Your task to perform on an android device: toggle wifi Image 0: 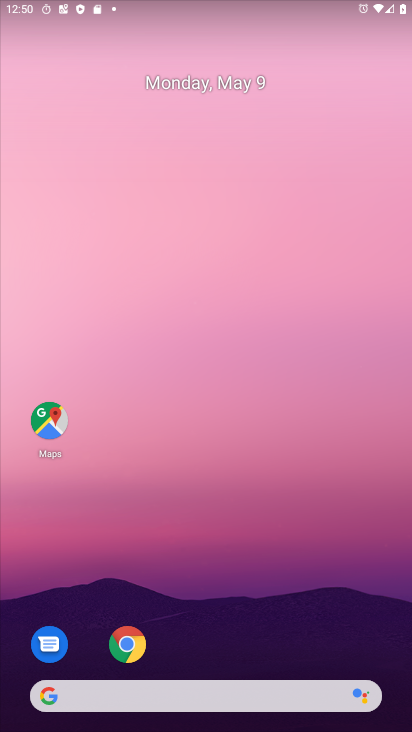
Step 0: drag from (304, 626) to (146, 81)
Your task to perform on an android device: toggle wifi Image 1: 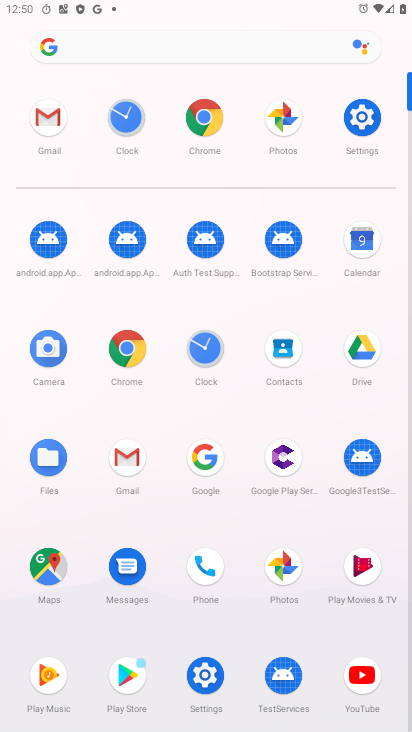
Step 1: click (355, 120)
Your task to perform on an android device: toggle wifi Image 2: 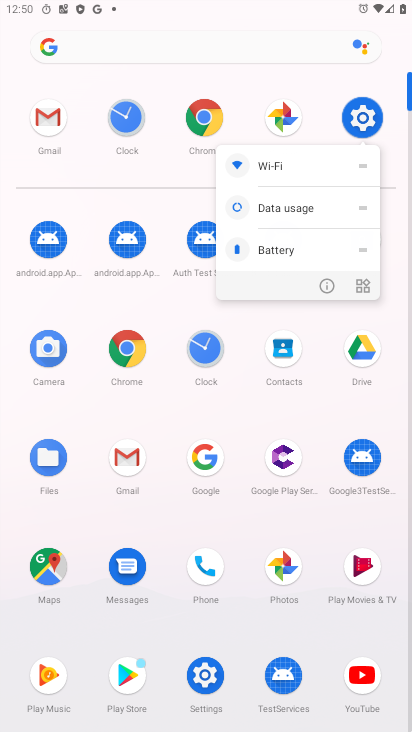
Step 2: click (364, 114)
Your task to perform on an android device: toggle wifi Image 3: 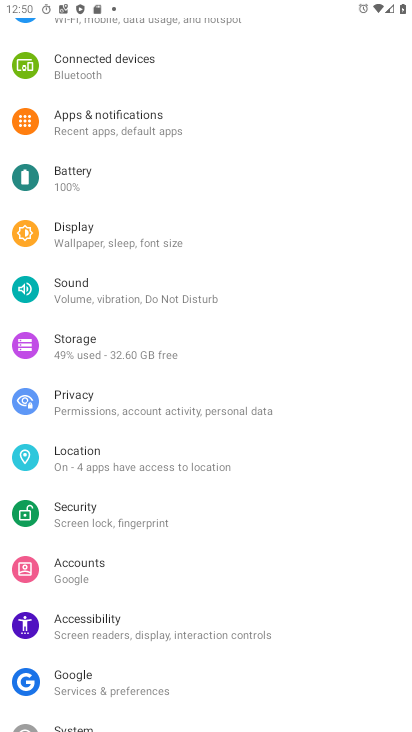
Step 3: drag from (188, 434) to (200, 560)
Your task to perform on an android device: toggle wifi Image 4: 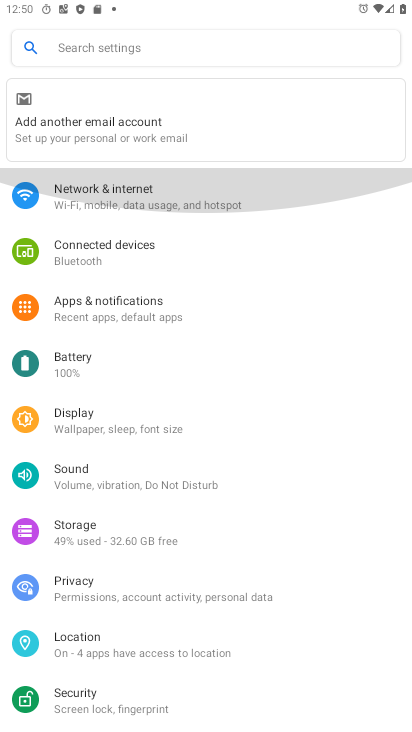
Step 4: drag from (135, 107) to (216, 607)
Your task to perform on an android device: toggle wifi Image 5: 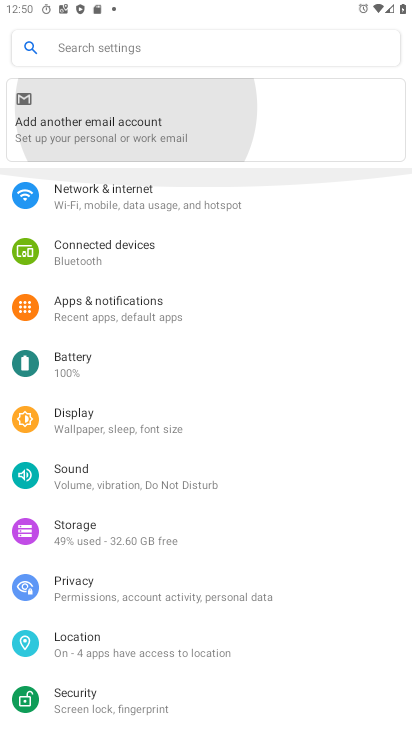
Step 5: drag from (119, 205) to (187, 472)
Your task to perform on an android device: toggle wifi Image 6: 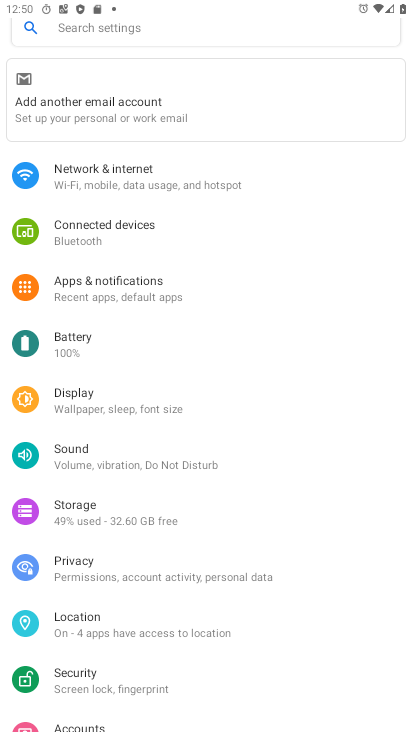
Step 6: click (122, 168)
Your task to perform on an android device: toggle wifi Image 7: 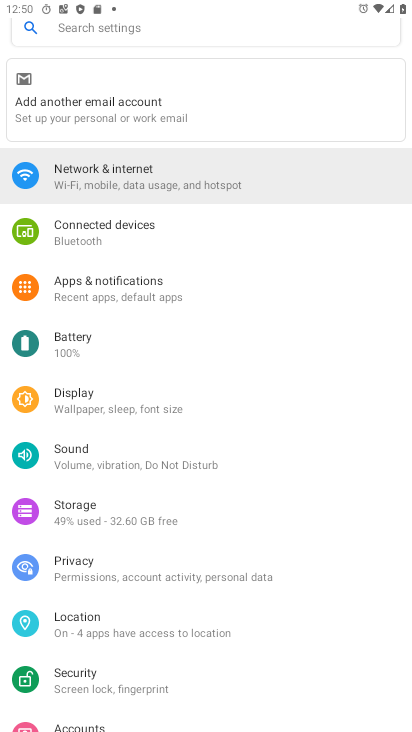
Step 7: click (121, 167)
Your task to perform on an android device: toggle wifi Image 8: 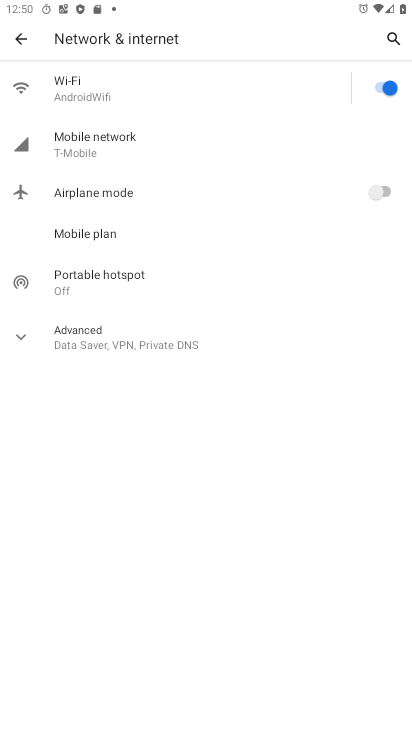
Step 8: click (387, 86)
Your task to perform on an android device: toggle wifi Image 9: 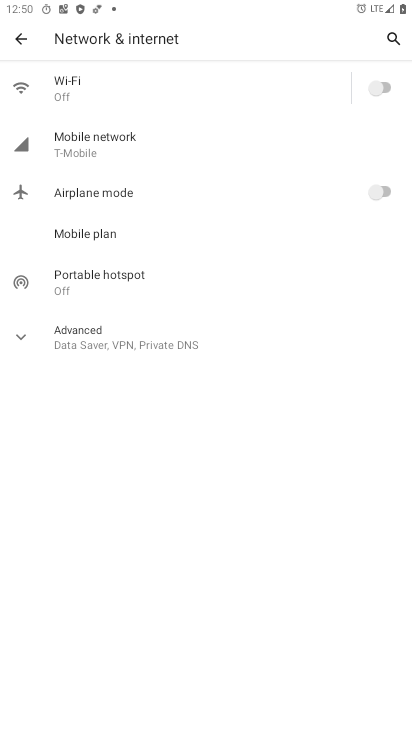
Step 9: task complete